Your task to perform on an android device: Show the shopping cart on amazon.com. Image 0: 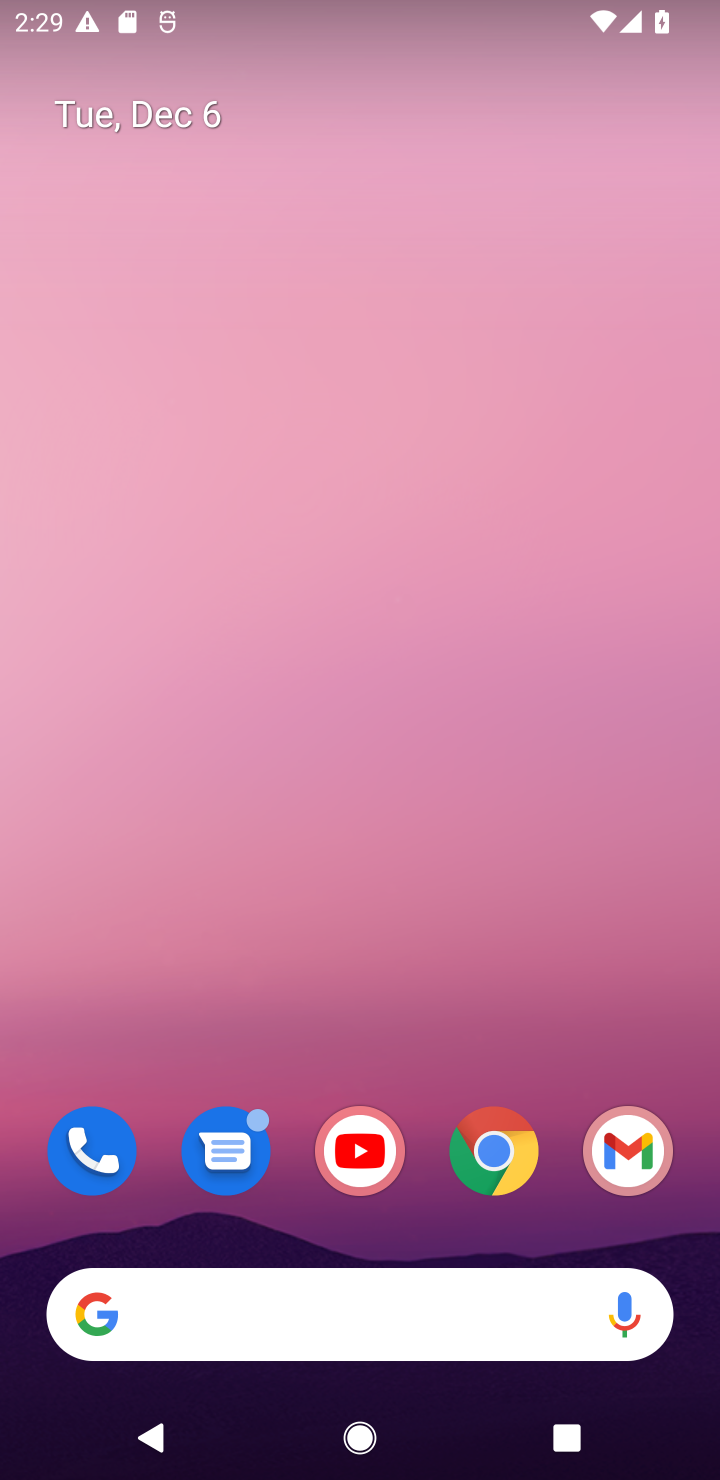
Step 0: click (477, 1162)
Your task to perform on an android device: Show the shopping cart on amazon.com. Image 1: 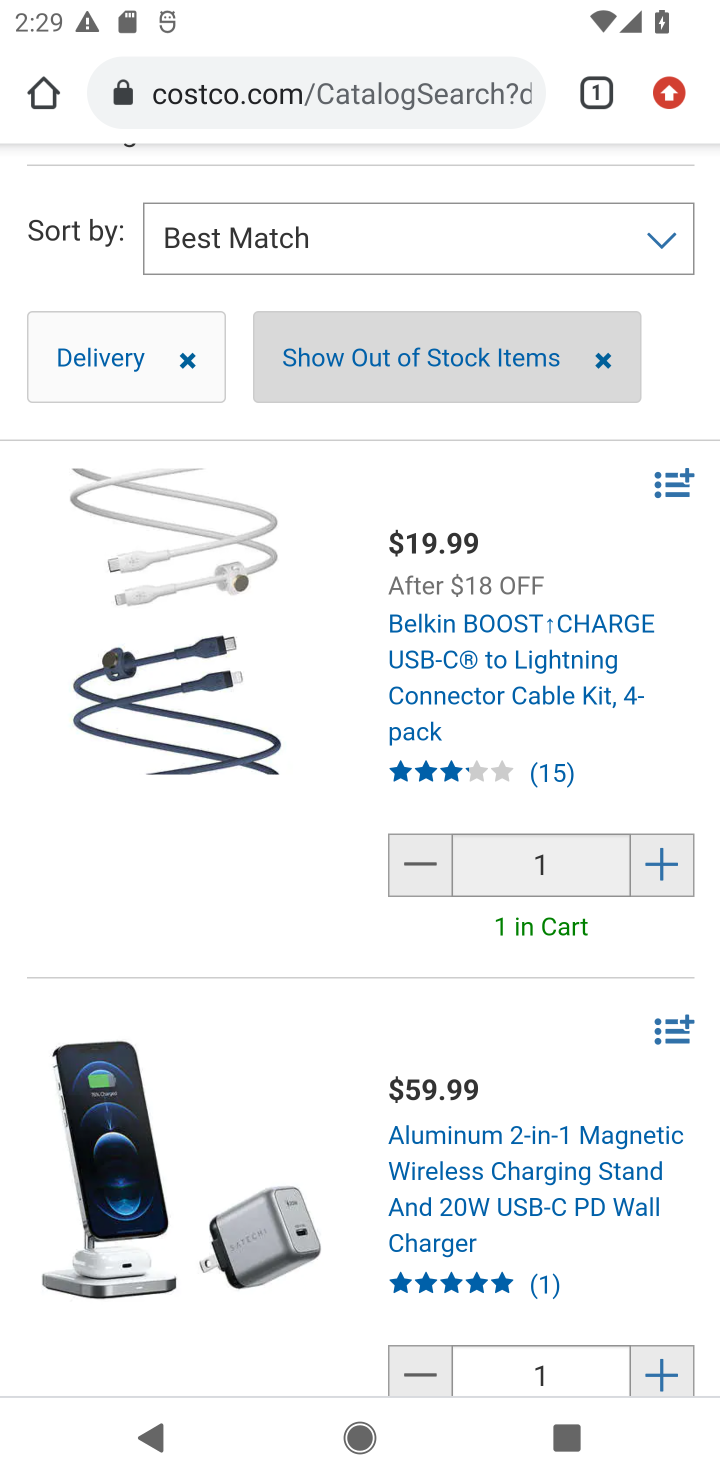
Step 1: click (323, 102)
Your task to perform on an android device: Show the shopping cart on amazon.com. Image 2: 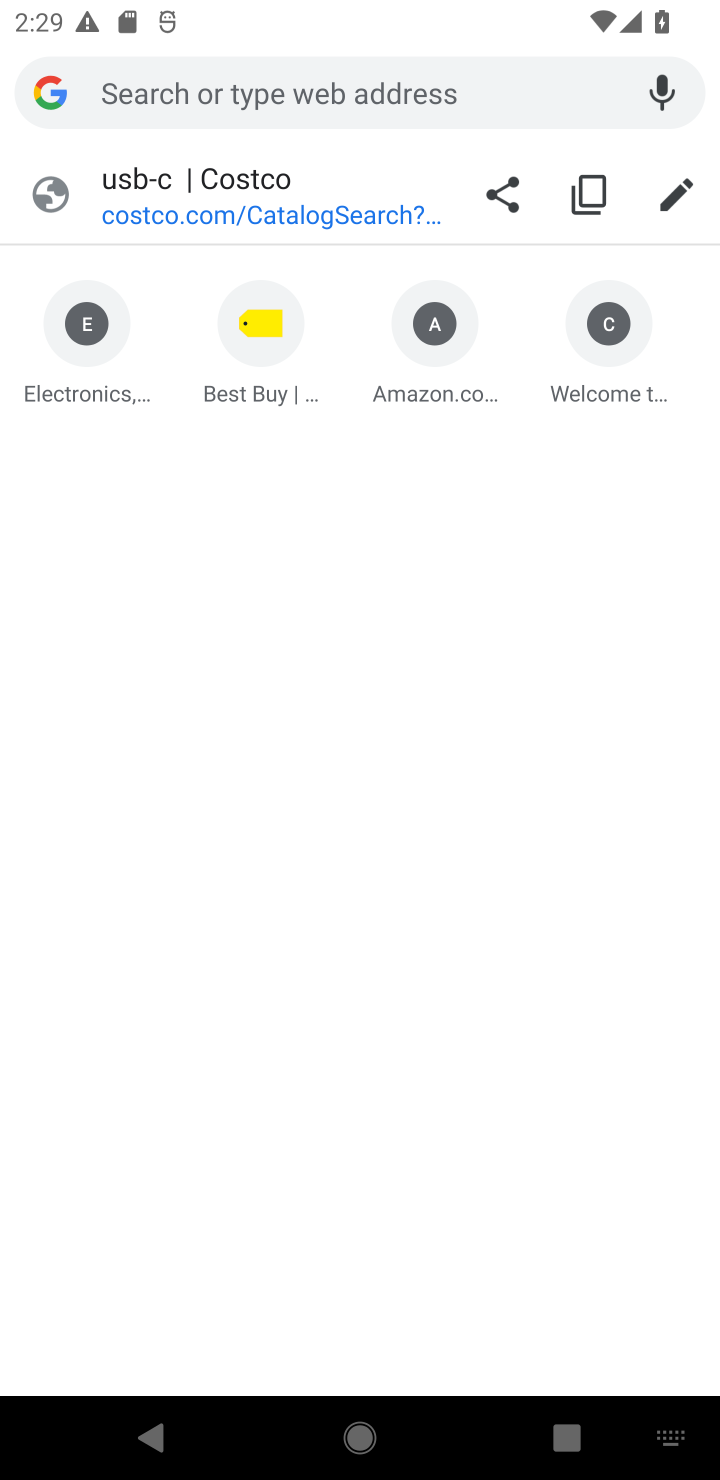
Step 2: click (422, 347)
Your task to perform on an android device: Show the shopping cart on amazon.com. Image 3: 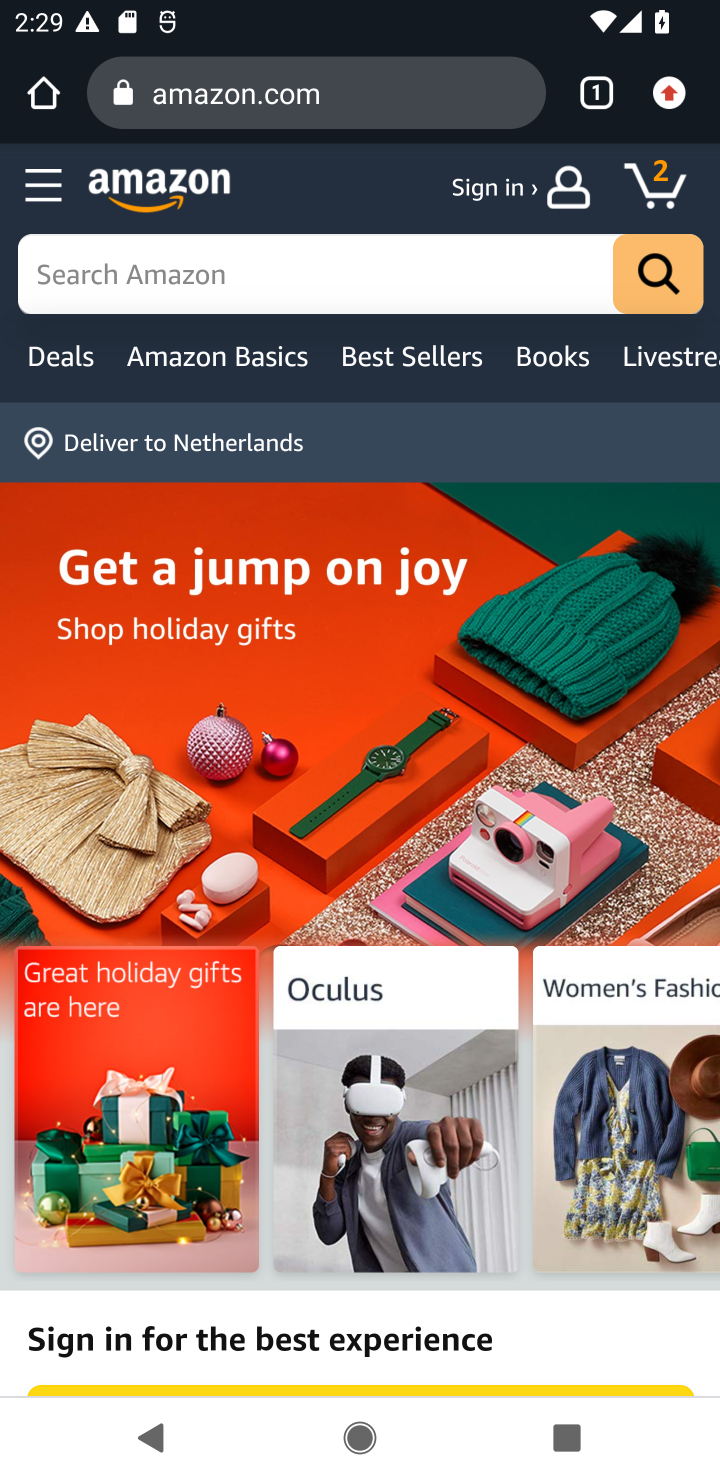
Step 3: click (659, 188)
Your task to perform on an android device: Show the shopping cart on amazon.com. Image 4: 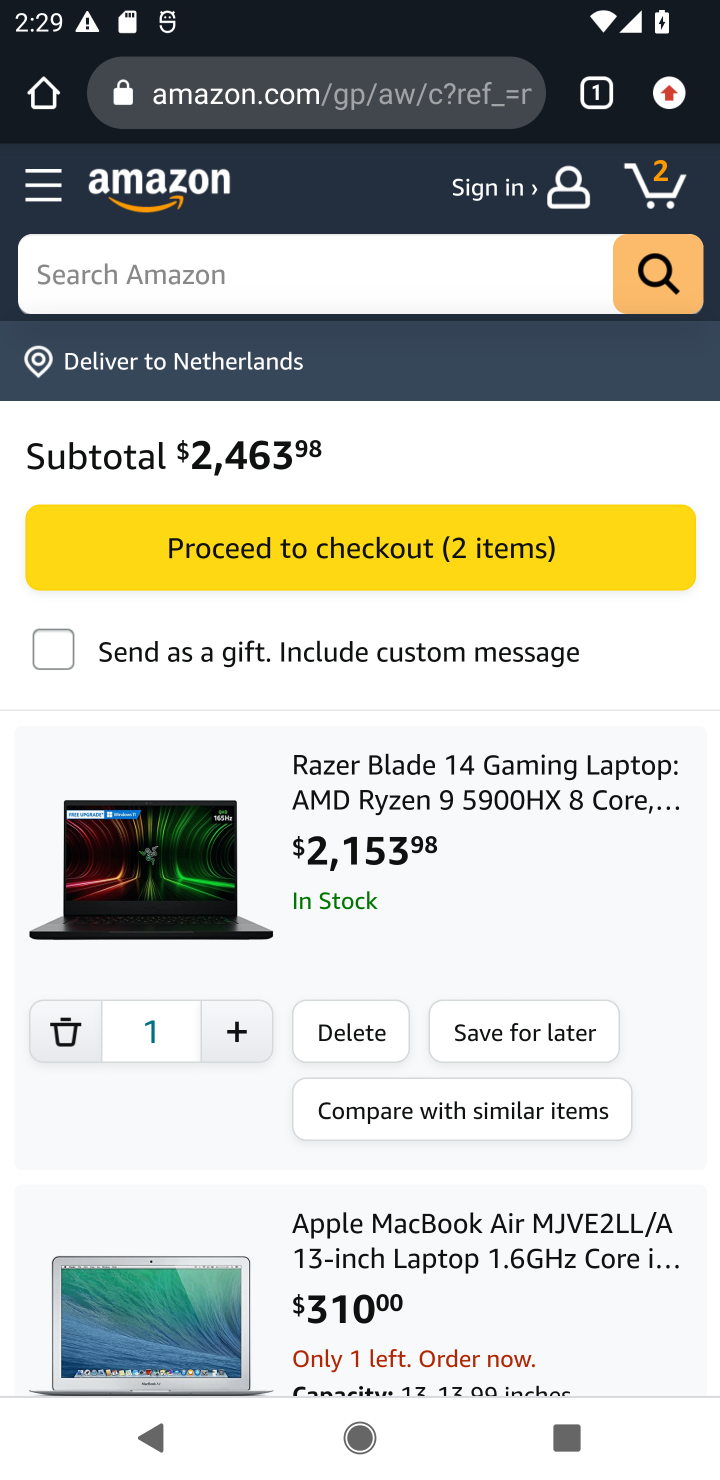
Step 4: task complete